Your task to perform on an android device: turn on bluetooth scan Image 0: 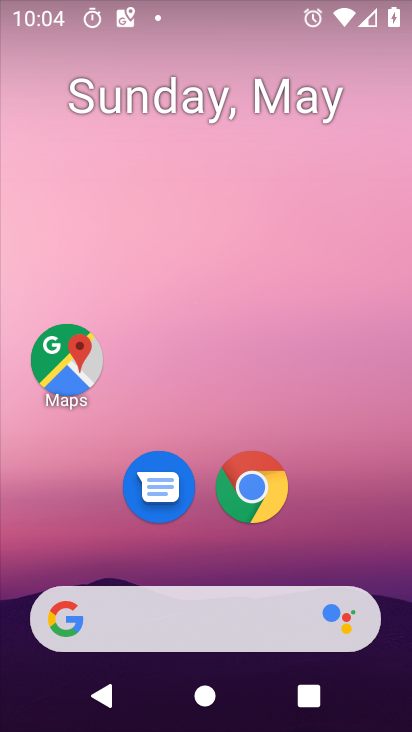
Step 0: drag from (282, 621) to (319, 10)
Your task to perform on an android device: turn on bluetooth scan Image 1: 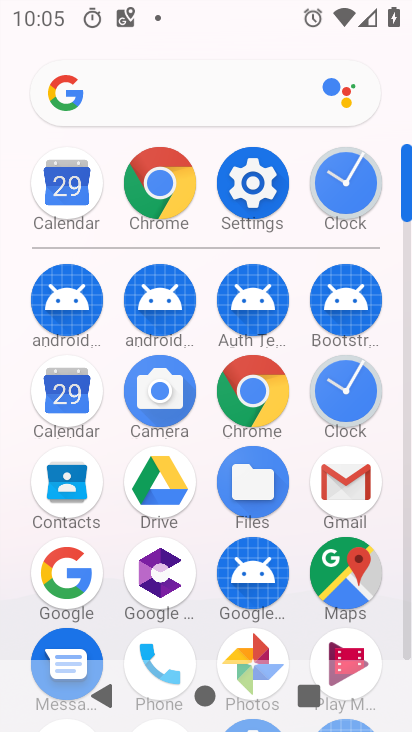
Step 1: click (274, 179)
Your task to perform on an android device: turn on bluetooth scan Image 2: 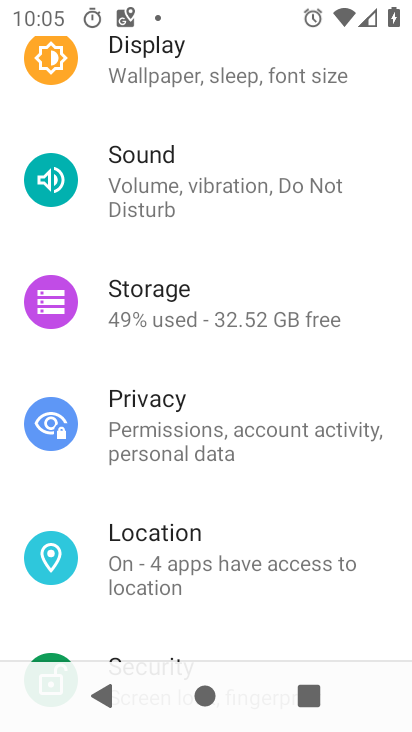
Step 2: drag from (250, 222) to (169, 715)
Your task to perform on an android device: turn on bluetooth scan Image 3: 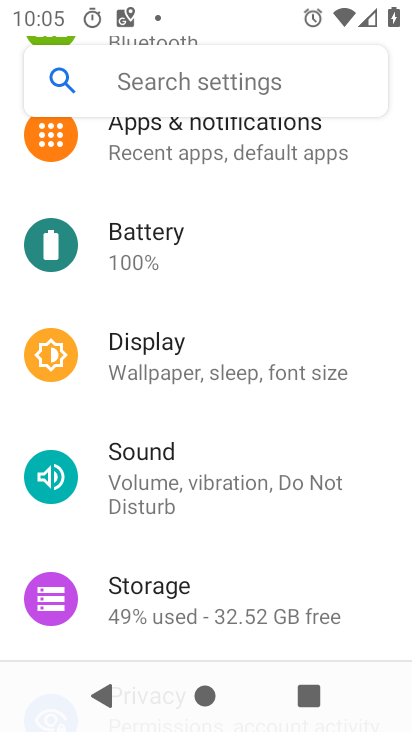
Step 3: drag from (194, 250) to (12, 590)
Your task to perform on an android device: turn on bluetooth scan Image 4: 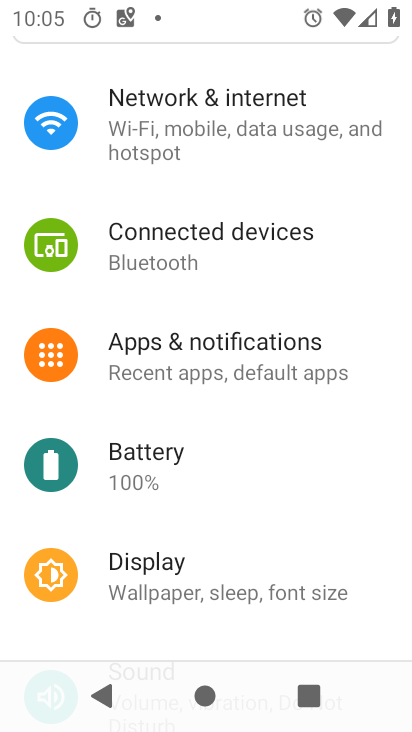
Step 4: click (209, 268)
Your task to perform on an android device: turn on bluetooth scan Image 5: 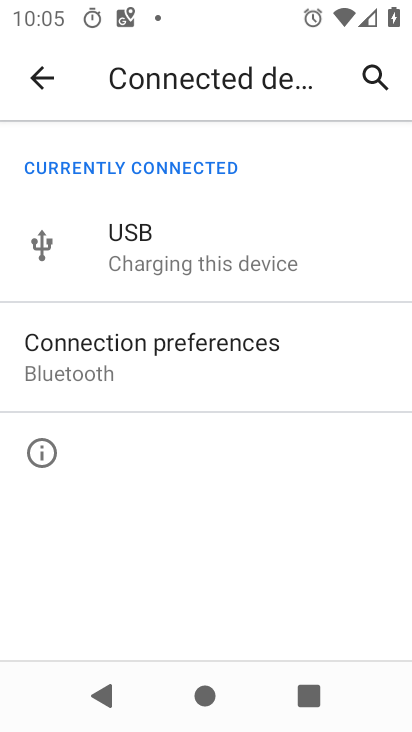
Step 5: click (204, 363)
Your task to perform on an android device: turn on bluetooth scan Image 6: 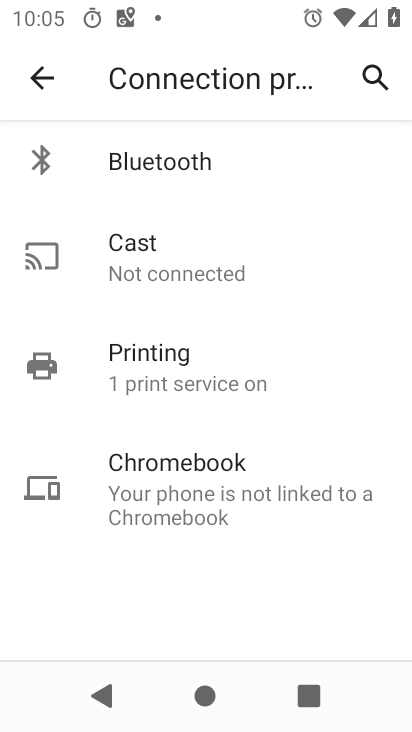
Step 6: click (150, 165)
Your task to perform on an android device: turn on bluetooth scan Image 7: 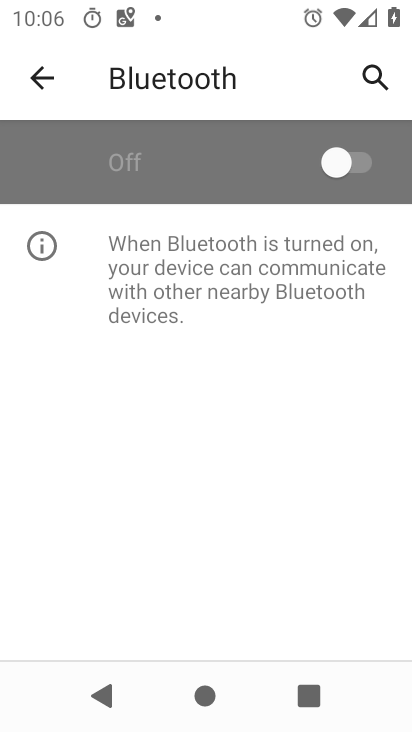
Step 7: click (305, 190)
Your task to perform on an android device: turn on bluetooth scan Image 8: 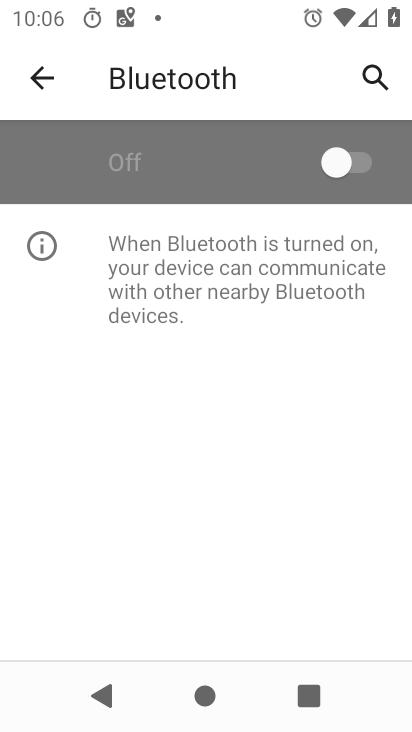
Step 8: task complete